Your task to perform on an android device: Go to network settings Image 0: 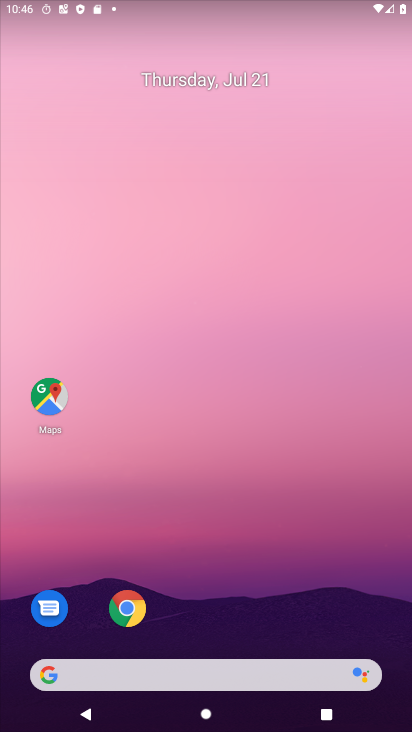
Step 0: drag from (192, 619) to (227, 16)
Your task to perform on an android device: Go to network settings Image 1: 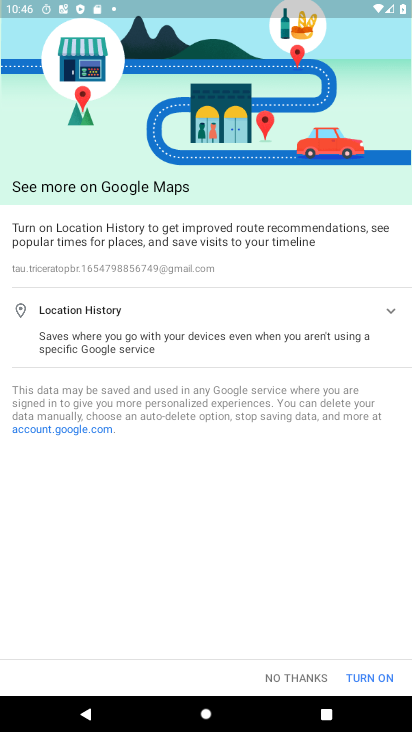
Step 1: press home button
Your task to perform on an android device: Go to network settings Image 2: 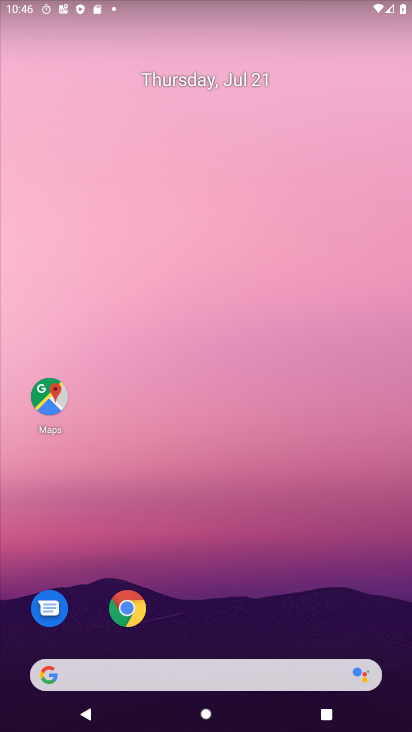
Step 2: drag from (189, 562) to (300, 11)
Your task to perform on an android device: Go to network settings Image 3: 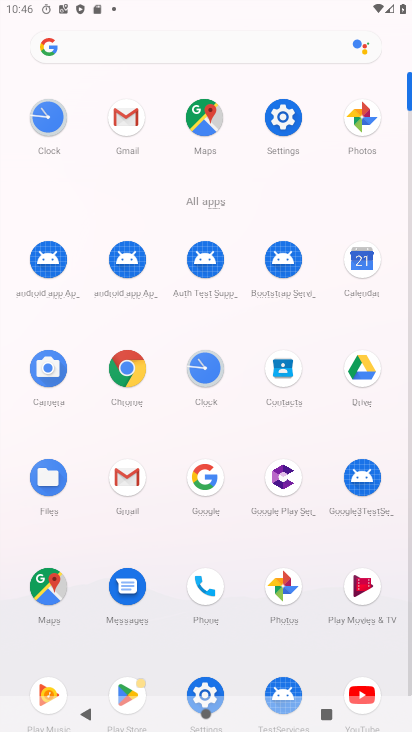
Step 3: click (284, 152)
Your task to perform on an android device: Go to network settings Image 4: 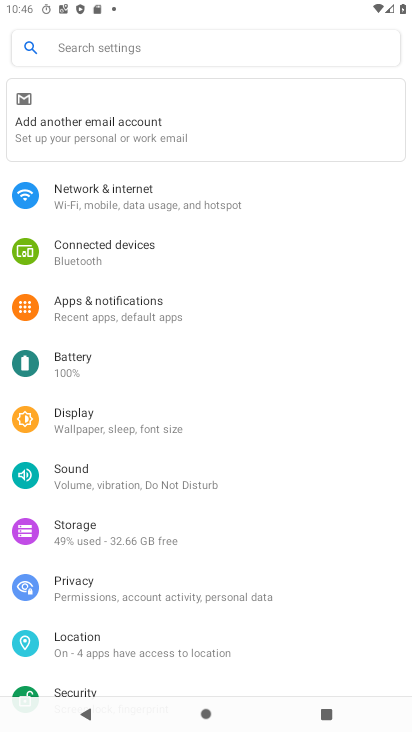
Step 4: click (144, 210)
Your task to perform on an android device: Go to network settings Image 5: 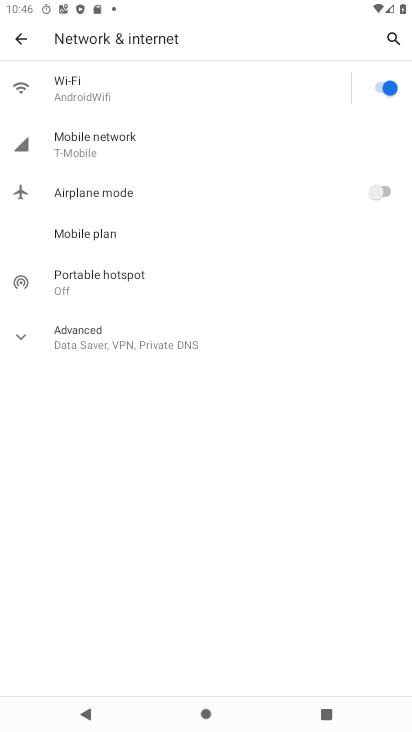
Step 5: task complete